Your task to perform on an android device: Go to Maps Image 0: 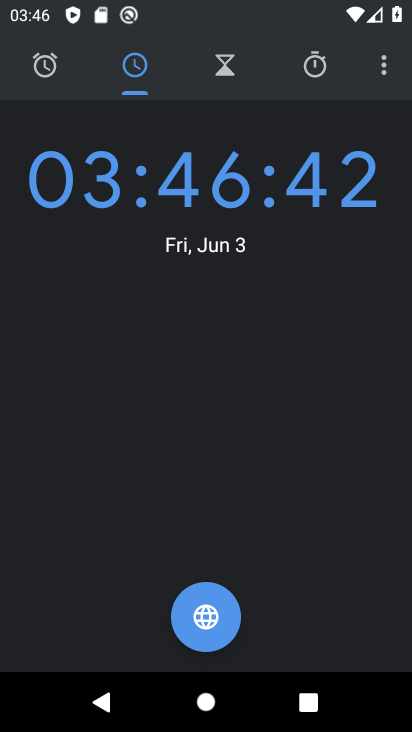
Step 0: press home button
Your task to perform on an android device: Go to Maps Image 1: 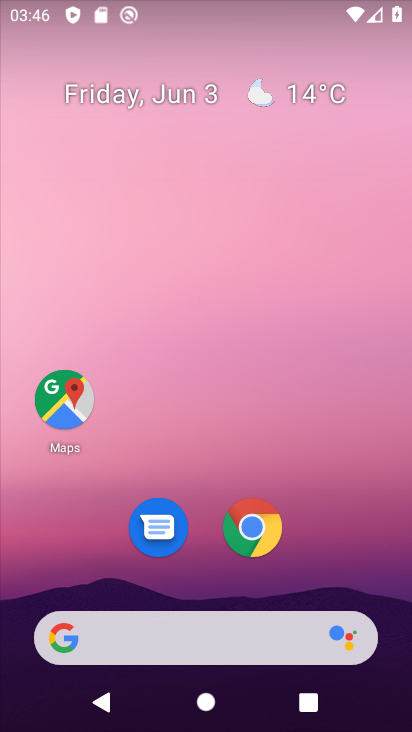
Step 1: click (61, 399)
Your task to perform on an android device: Go to Maps Image 2: 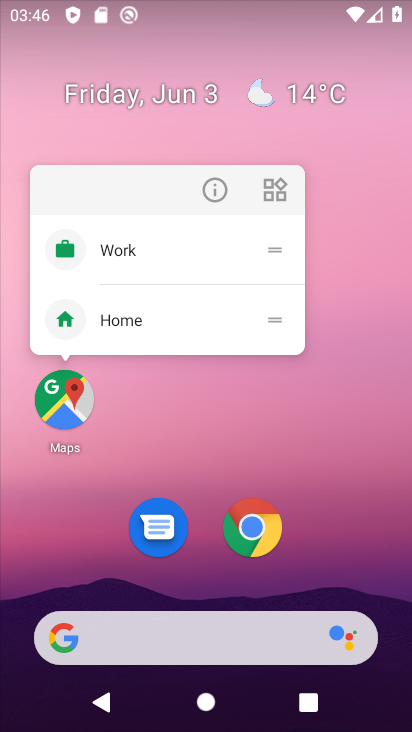
Step 2: click (61, 399)
Your task to perform on an android device: Go to Maps Image 3: 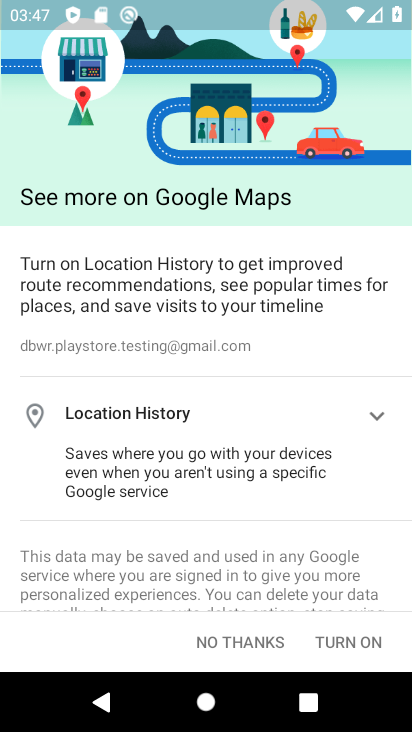
Step 3: click (219, 642)
Your task to perform on an android device: Go to Maps Image 4: 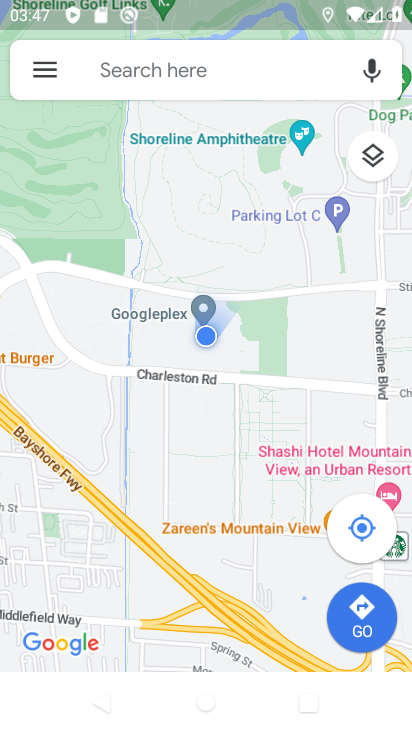
Step 4: task complete